Your task to perform on an android device: check android version Image 0: 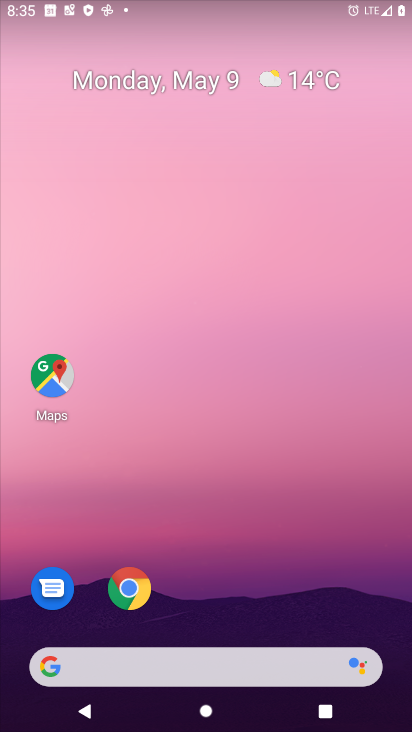
Step 0: drag from (390, 630) to (247, 144)
Your task to perform on an android device: check android version Image 1: 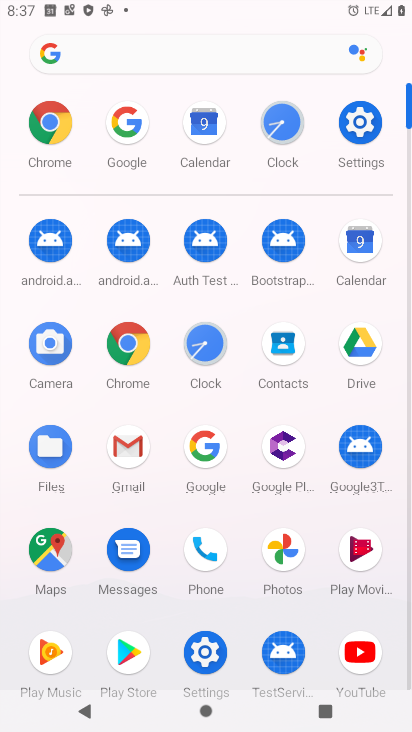
Step 1: click (203, 657)
Your task to perform on an android device: check android version Image 2: 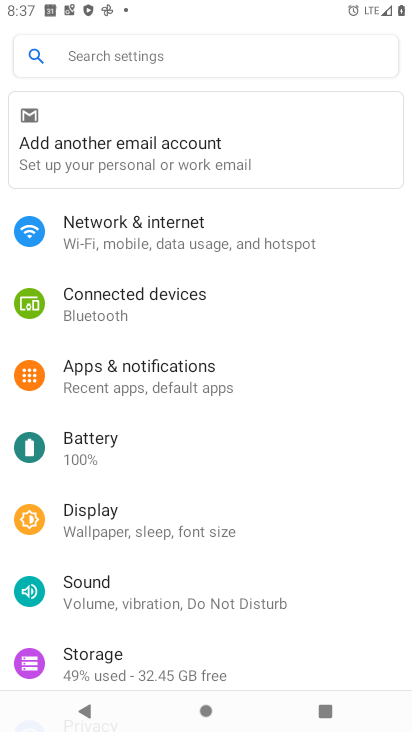
Step 2: drag from (203, 657) to (180, 21)
Your task to perform on an android device: check android version Image 3: 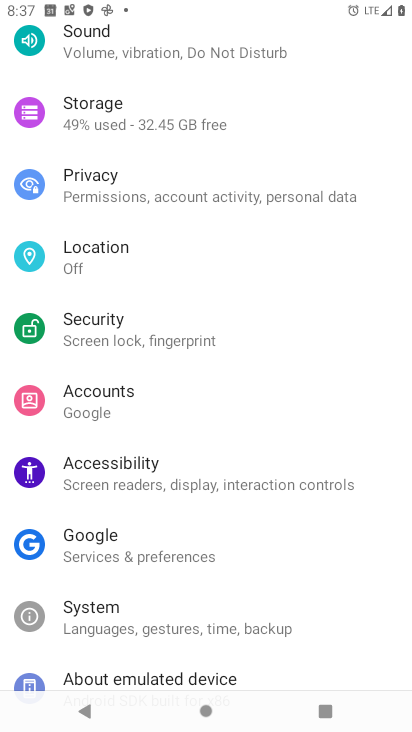
Step 3: drag from (148, 634) to (165, 166)
Your task to perform on an android device: check android version Image 4: 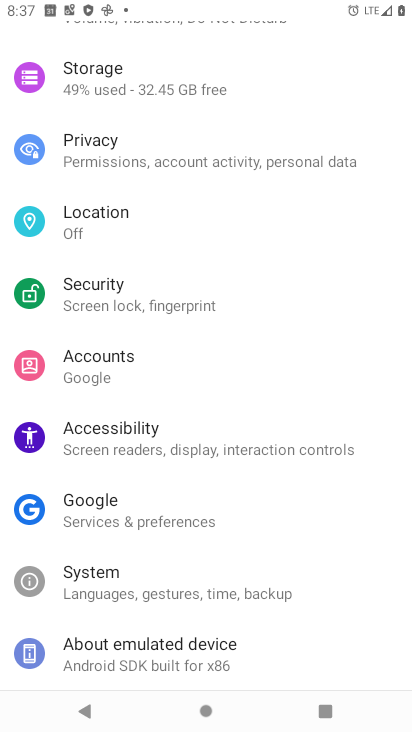
Step 4: click (149, 653)
Your task to perform on an android device: check android version Image 5: 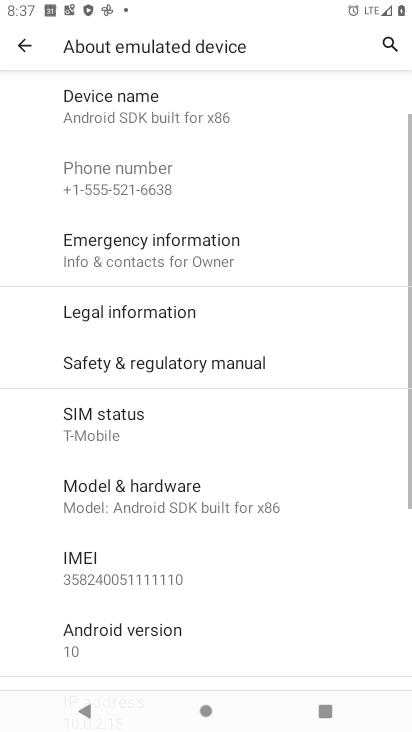
Step 5: click (110, 645)
Your task to perform on an android device: check android version Image 6: 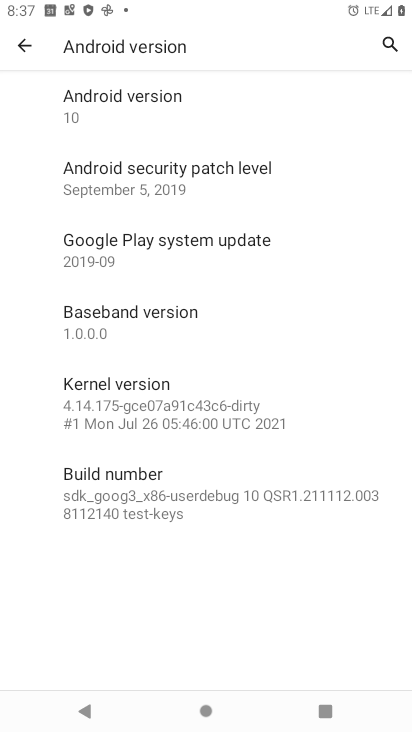
Step 6: task complete